Your task to perform on an android device: See recent photos Image 0: 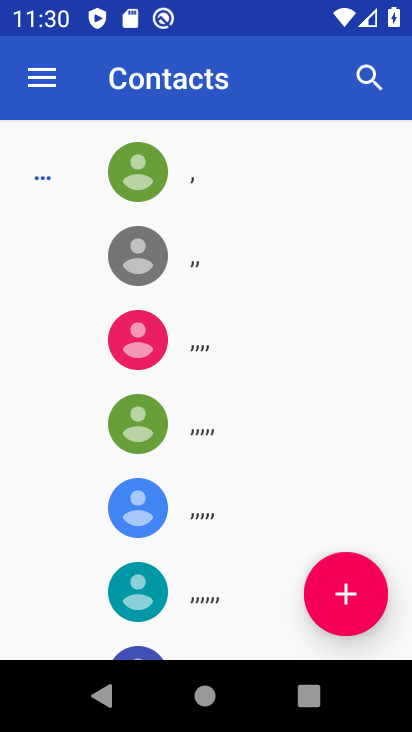
Step 0: press home button
Your task to perform on an android device: See recent photos Image 1: 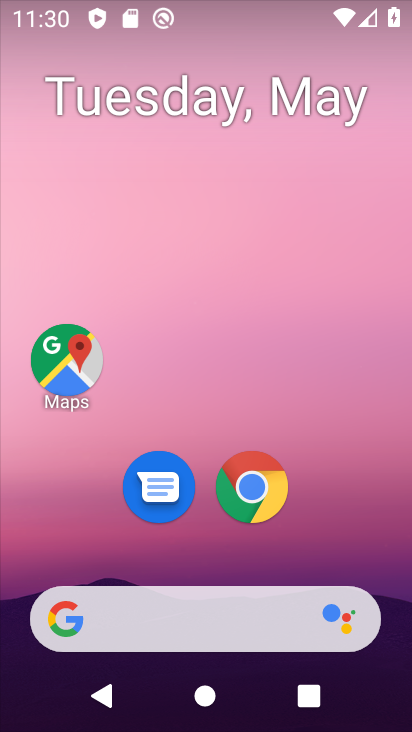
Step 1: drag from (318, 538) to (310, 154)
Your task to perform on an android device: See recent photos Image 2: 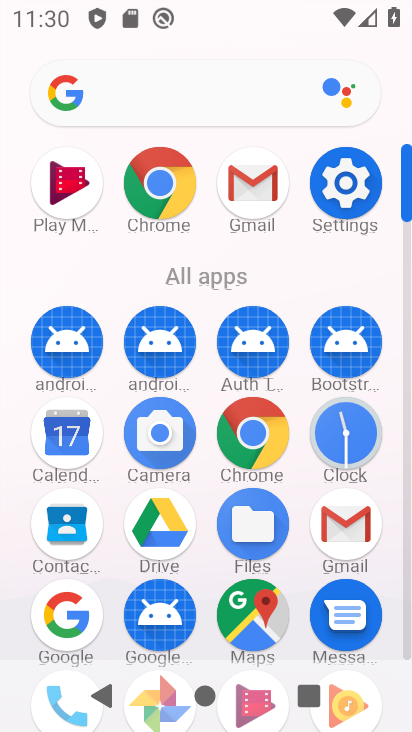
Step 2: drag from (198, 557) to (243, 162)
Your task to perform on an android device: See recent photos Image 3: 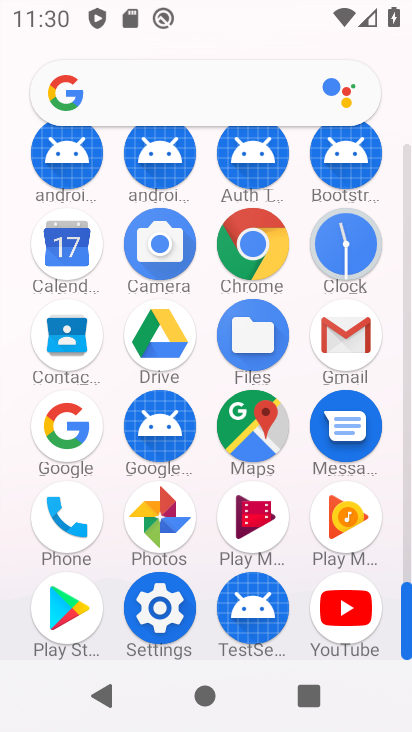
Step 3: click (149, 523)
Your task to perform on an android device: See recent photos Image 4: 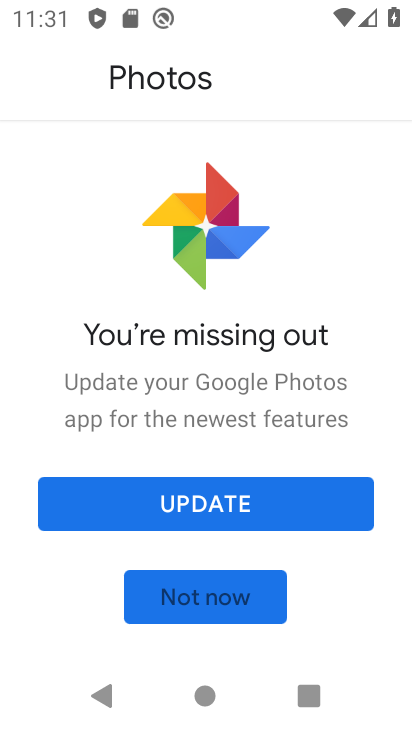
Step 4: click (251, 607)
Your task to perform on an android device: See recent photos Image 5: 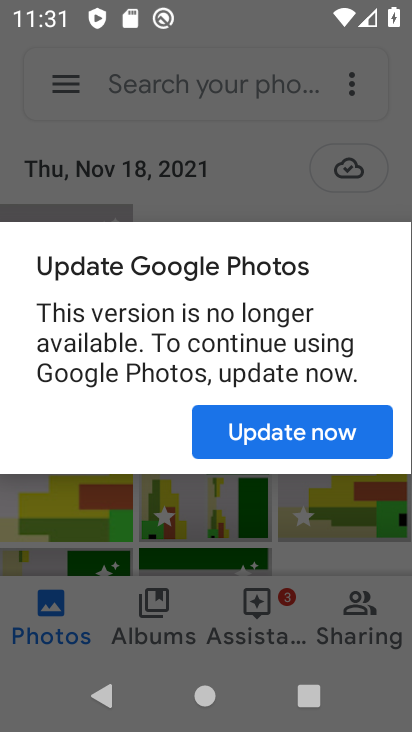
Step 5: click (335, 430)
Your task to perform on an android device: See recent photos Image 6: 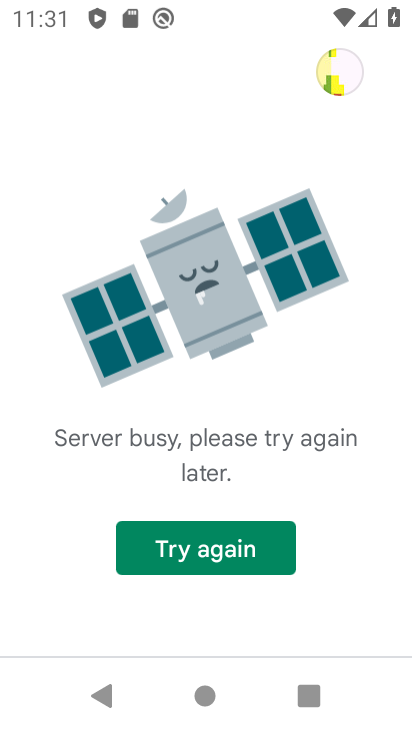
Step 6: press back button
Your task to perform on an android device: See recent photos Image 7: 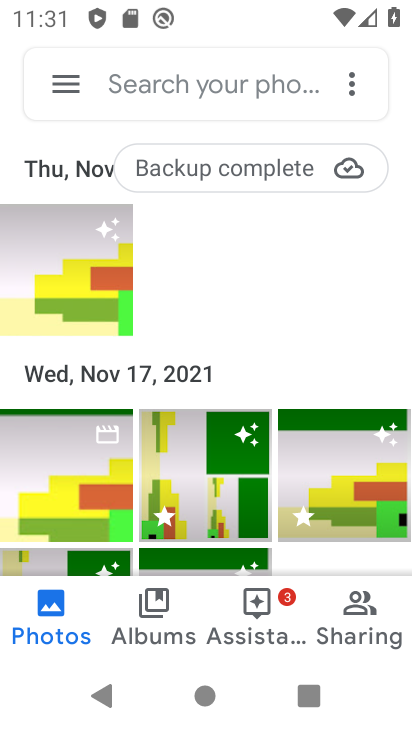
Step 7: click (31, 299)
Your task to perform on an android device: See recent photos Image 8: 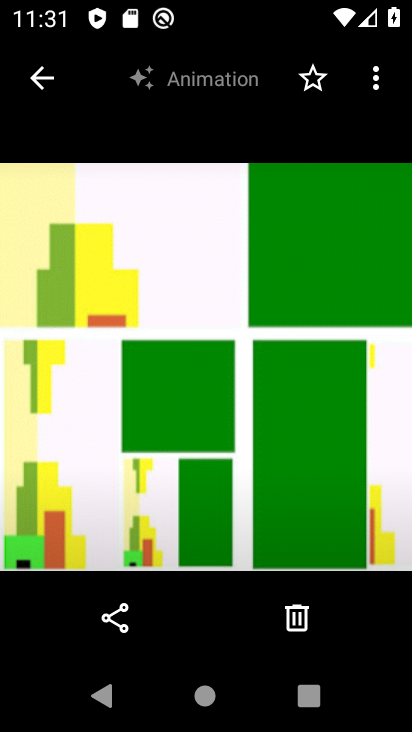
Step 8: task complete